Your task to perform on an android device: Go to ESPN.com Image 0: 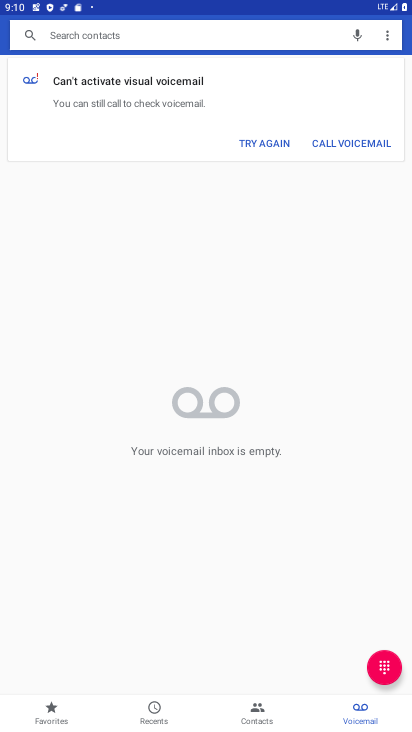
Step 0: press home button
Your task to perform on an android device: Go to ESPN.com Image 1: 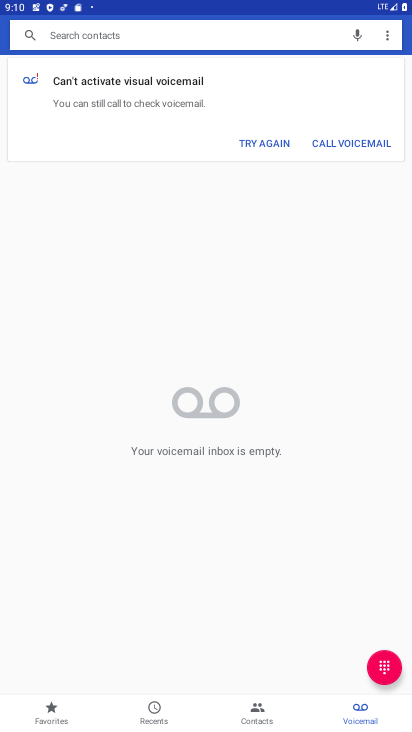
Step 1: press home button
Your task to perform on an android device: Go to ESPN.com Image 2: 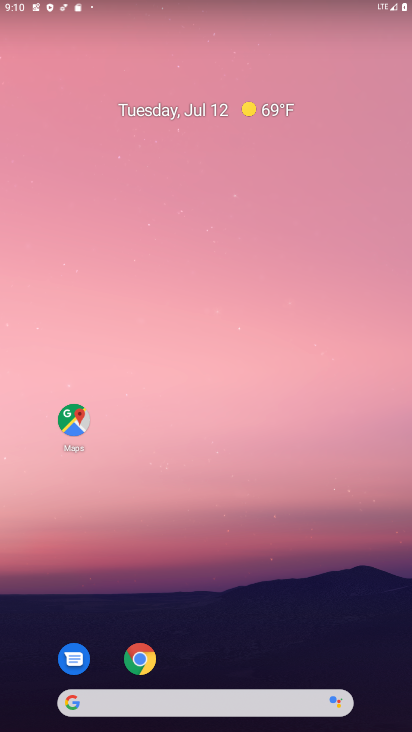
Step 2: drag from (224, 731) to (222, 219)
Your task to perform on an android device: Go to ESPN.com Image 3: 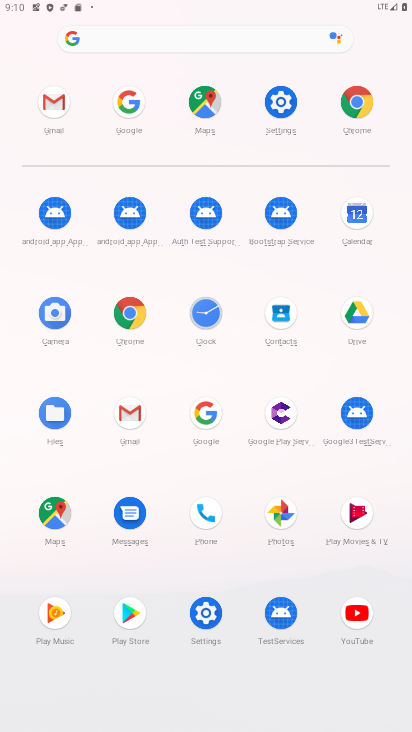
Step 3: click (132, 314)
Your task to perform on an android device: Go to ESPN.com Image 4: 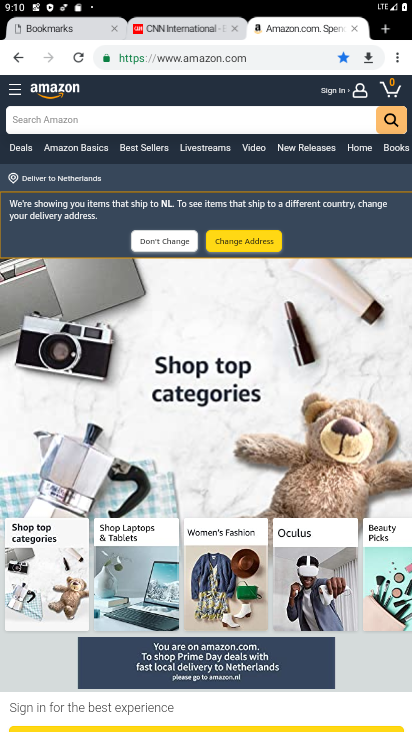
Step 4: click (398, 59)
Your task to perform on an android device: Go to ESPN.com Image 5: 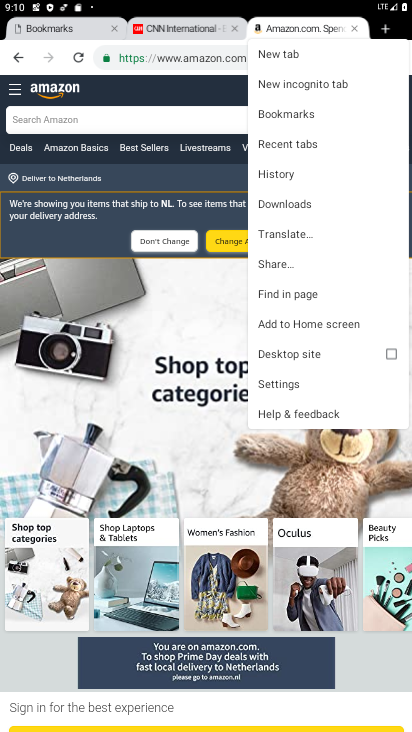
Step 5: click (262, 53)
Your task to perform on an android device: Go to ESPN.com Image 6: 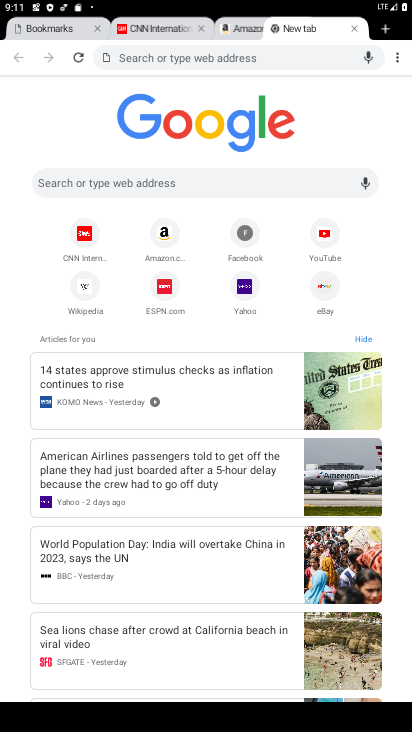
Step 6: click (165, 284)
Your task to perform on an android device: Go to ESPN.com Image 7: 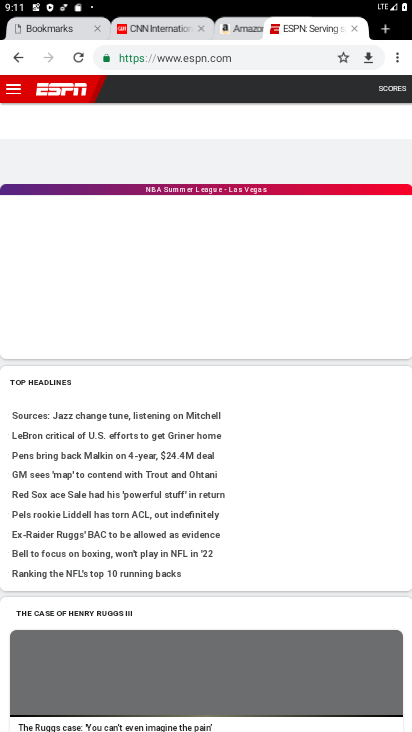
Step 7: task complete